Your task to perform on an android device: Search for the best Nike running shoes on Nike.com Image 0: 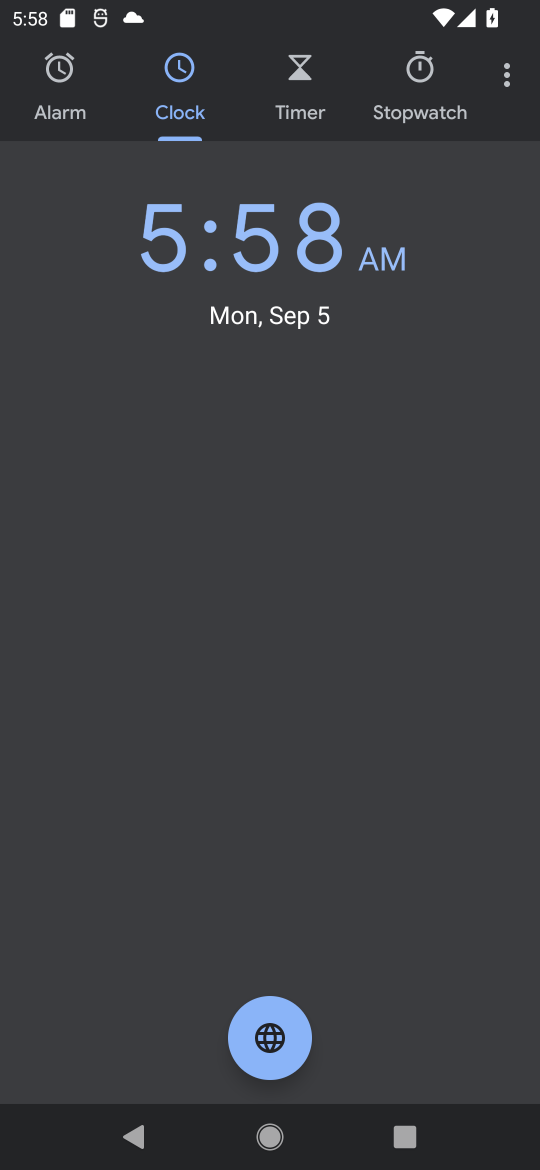
Step 0: press home button
Your task to perform on an android device: Search for the best Nike running shoes on Nike.com Image 1: 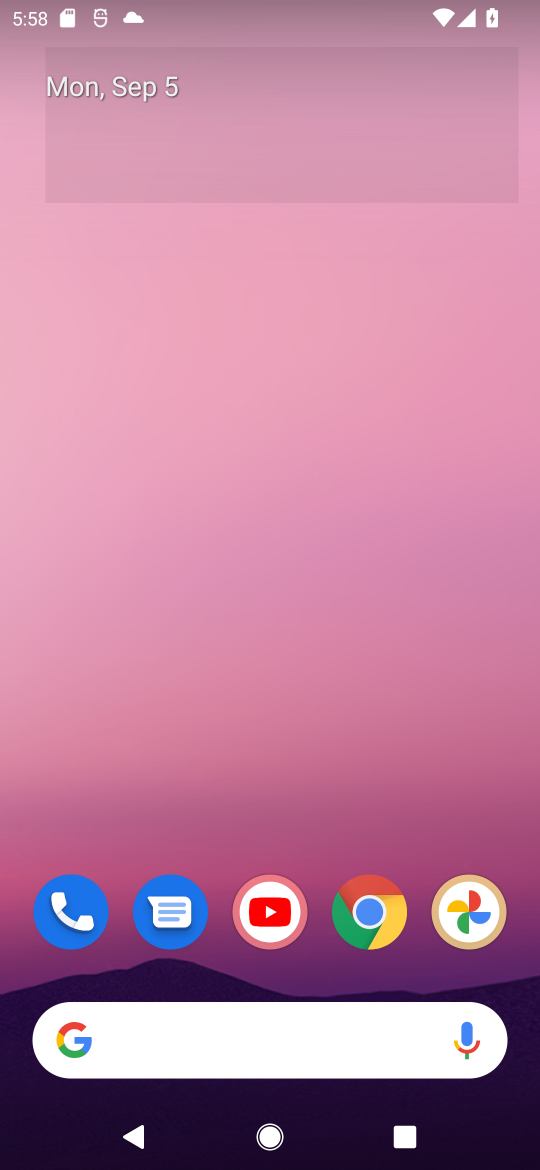
Step 1: click (352, 923)
Your task to perform on an android device: Search for the best Nike running shoes on Nike.com Image 2: 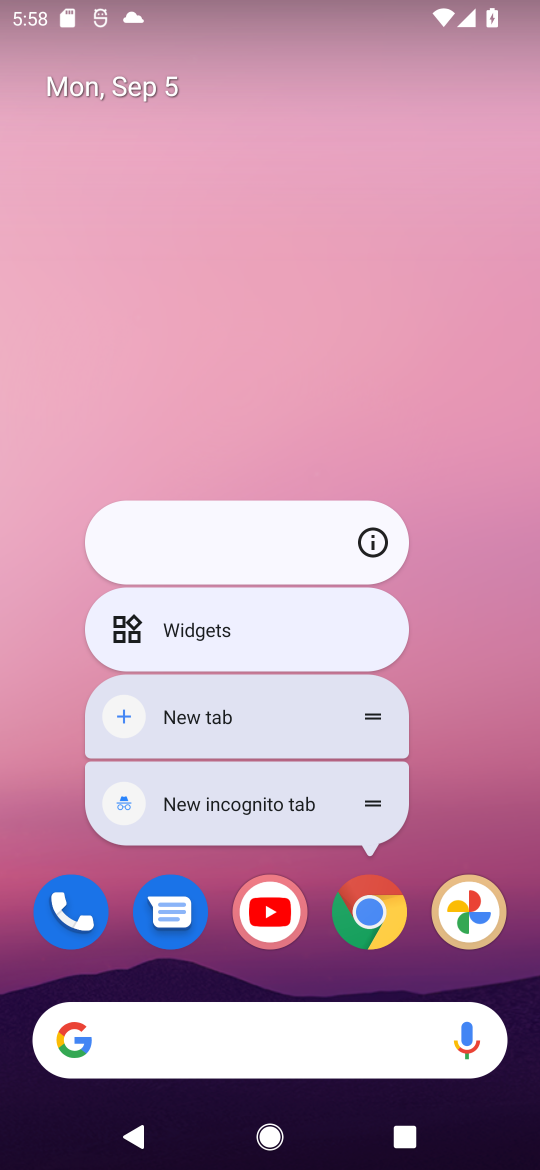
Step 2: click (352, 923)
Your task to perform on an android device: Search for the best Nike running shoes on Nike.com Image 3: 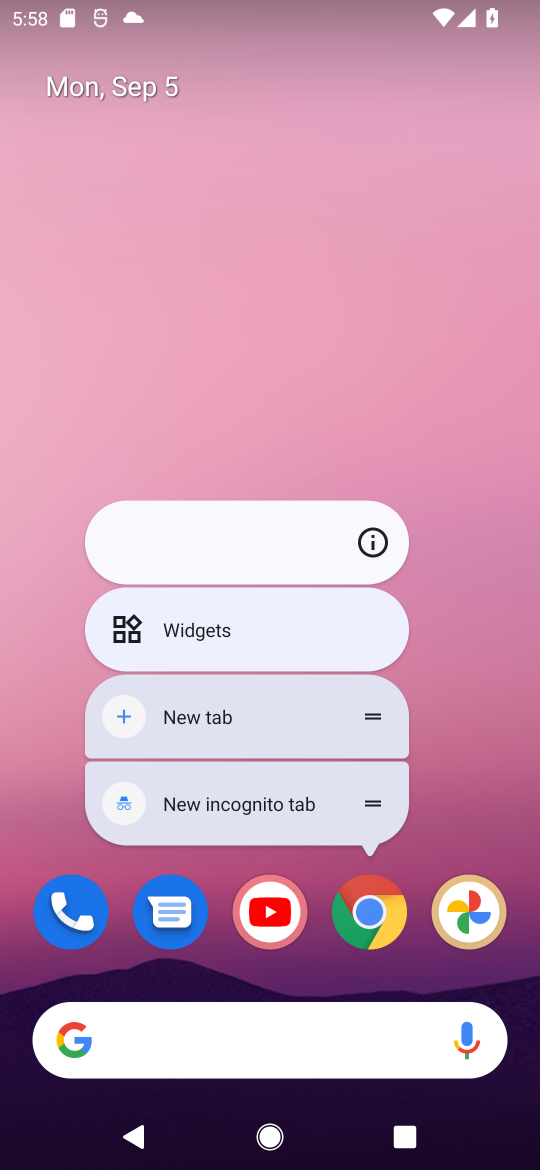
Step 3: click (382, 913)
Your task to perform on an android device: Search for the best Nike running shoes on Nike.com Image 4: 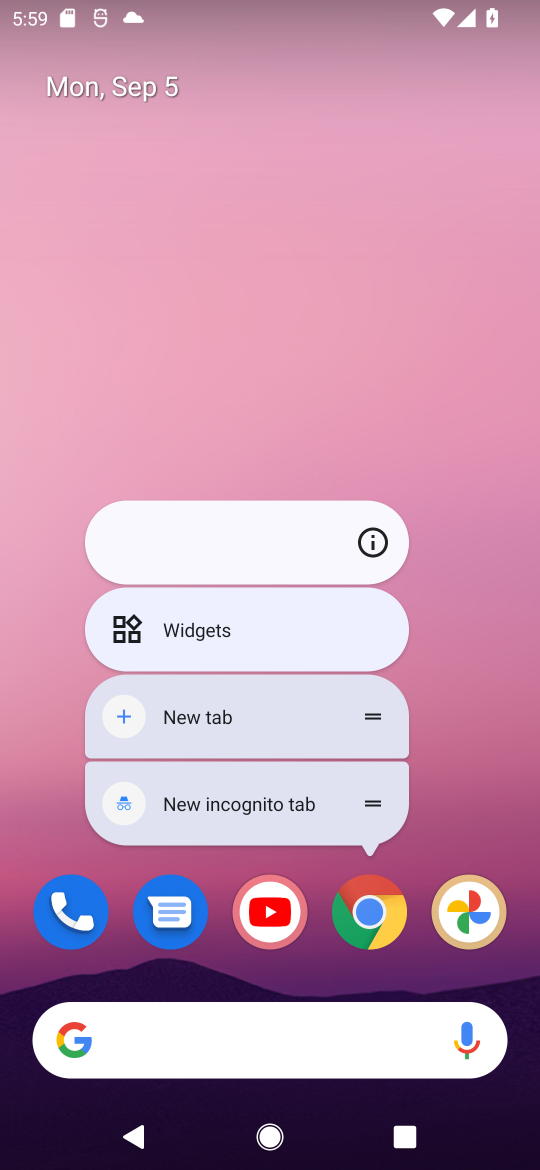
Step 4: click (382, 913)
Your task to perform on an android device: Search for the best Nike running shoes on Nike.com Image 5: 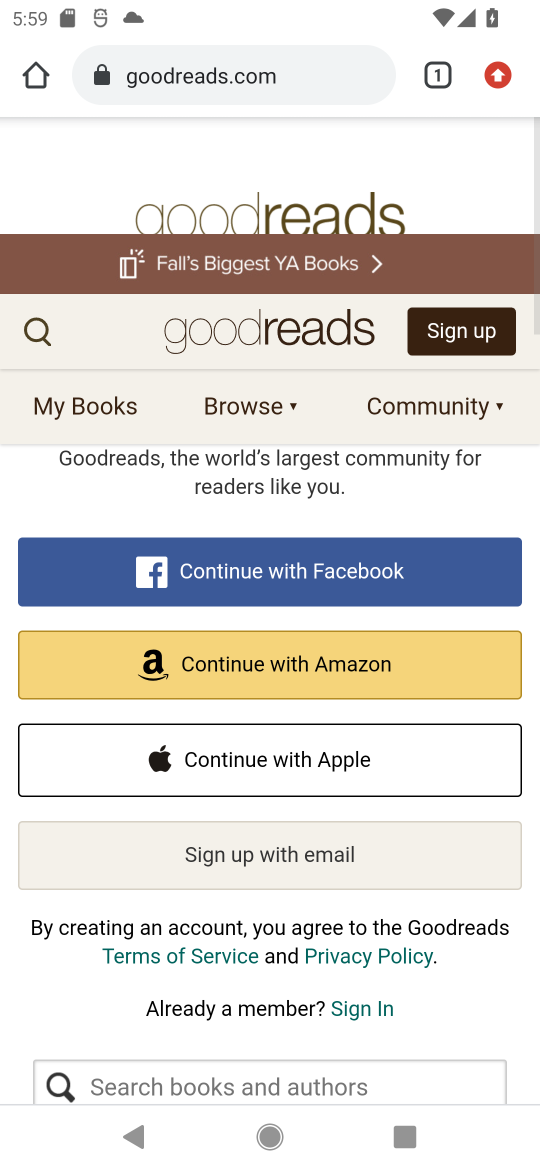
Step 5: click (259, 78)
Your task to perform on an android device: Search for the best Nike running shoes on Nike.com Image 6: 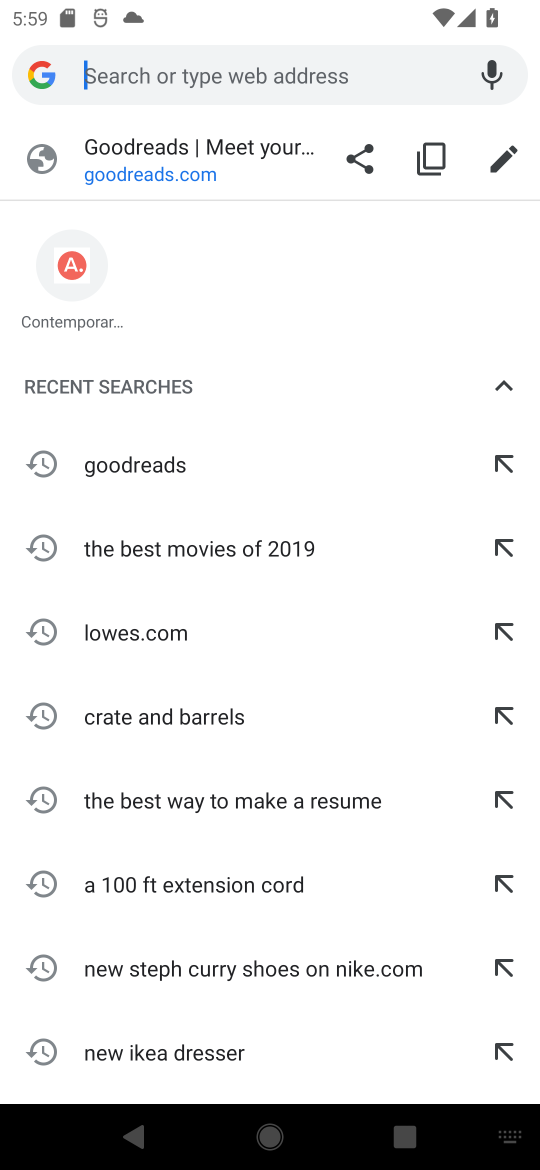
Step 6: type "nike.com"
Your task to perform on an android device: Search for the best Nike running shoes on Nike.com Image 7: 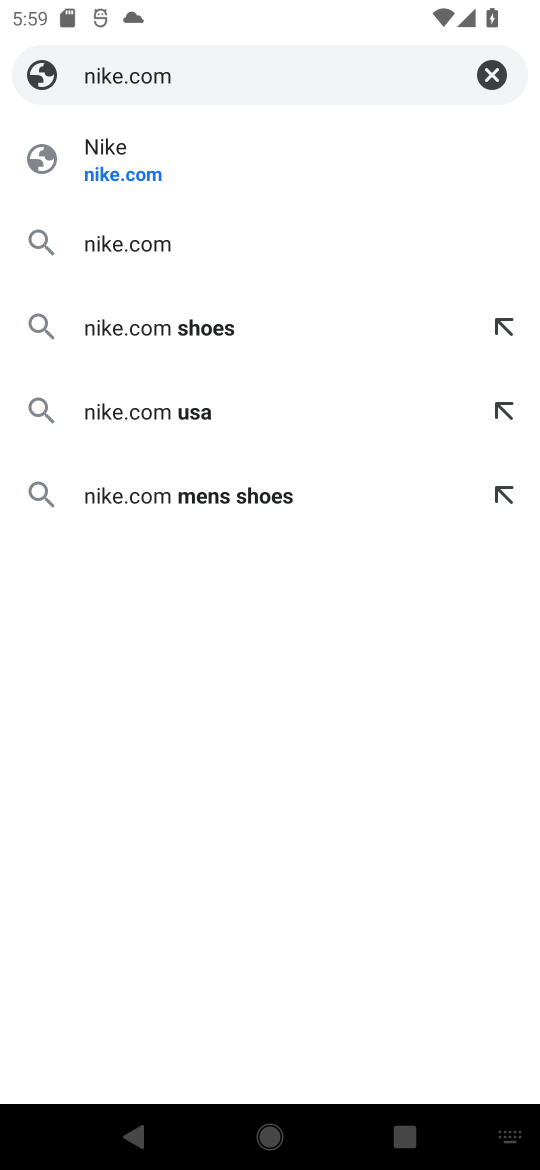
Step 7: click (149, 150)
Your task to perform on an android device: Search for the best Nike running shoes on Nike.com Image 8: 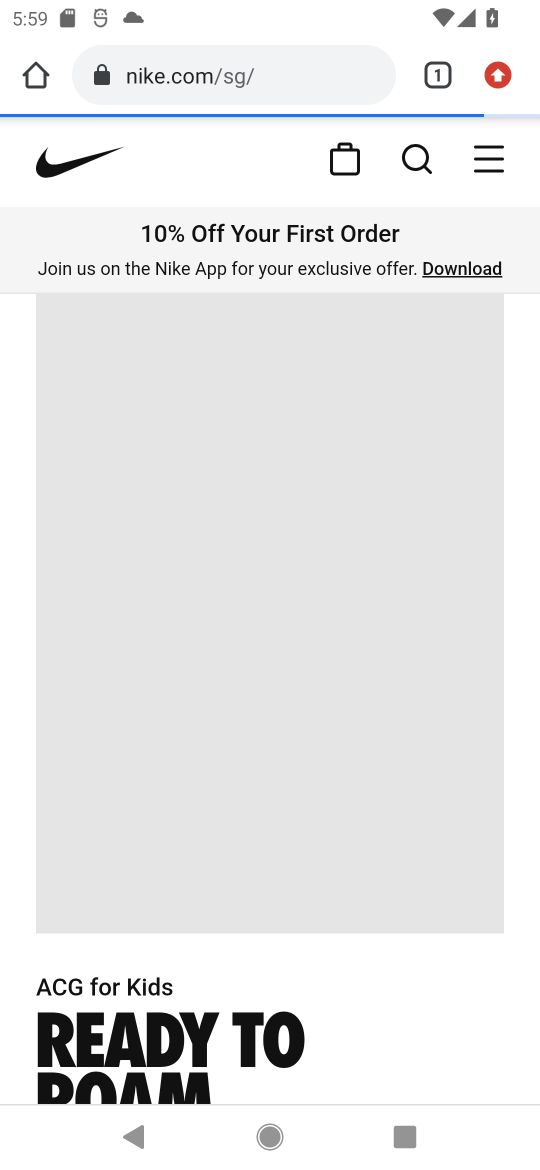
Step 8: click (414, 156)
Your task to perform on an android device: Search for the best Nike running shoes on Nike.com Image 9: 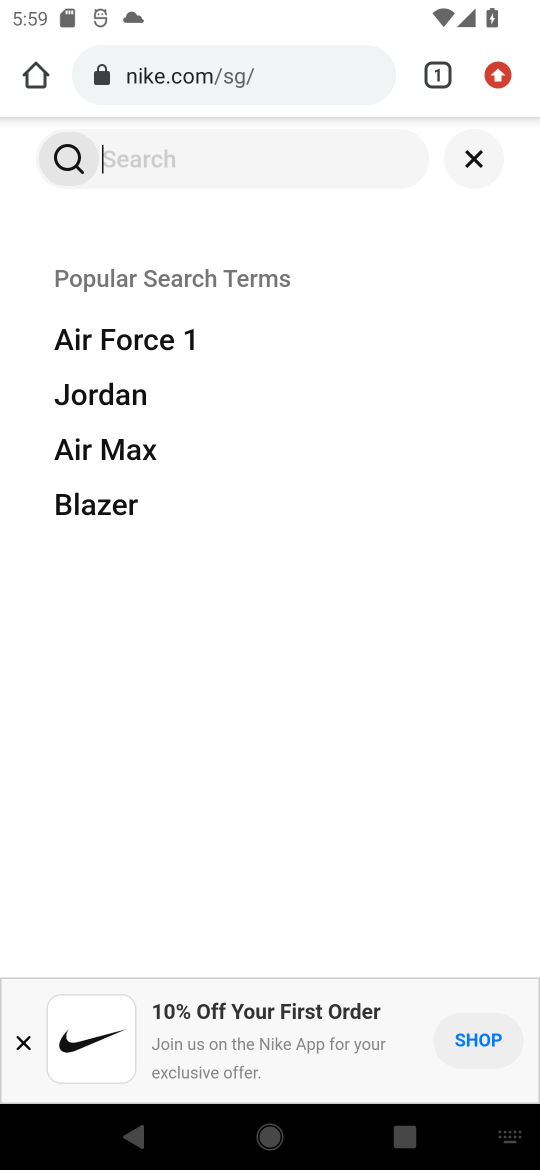
Step 9: type "best running shoes"
Your task to perform on an android device: Search for the best Nike running shoes on Nike.com Image 10: 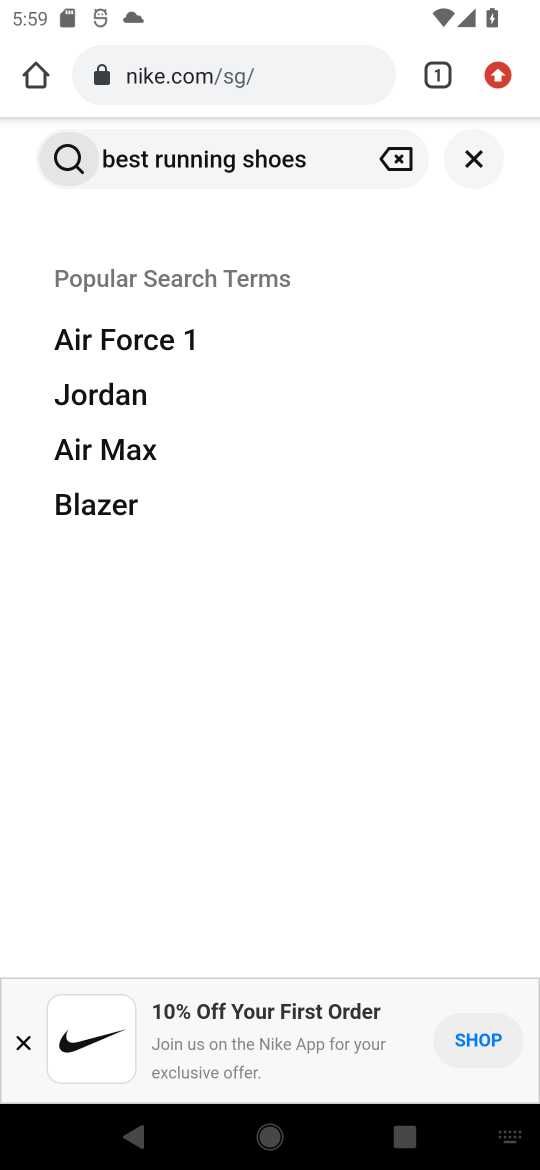
Step 10: click (58, 149)
Your task to perform on an android device: Search for the best Nike running shoes on Nike.com Image 11: 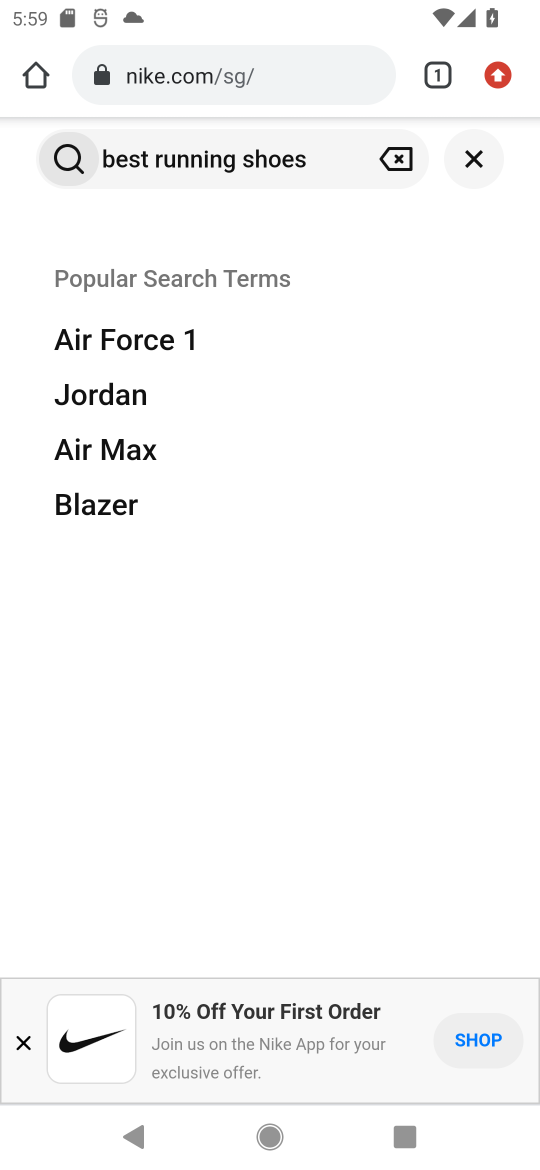
Step 11: click (58, 149)
Your task to perform on an android device: Search for the best Nike running shoes on Nike.com Image 12: 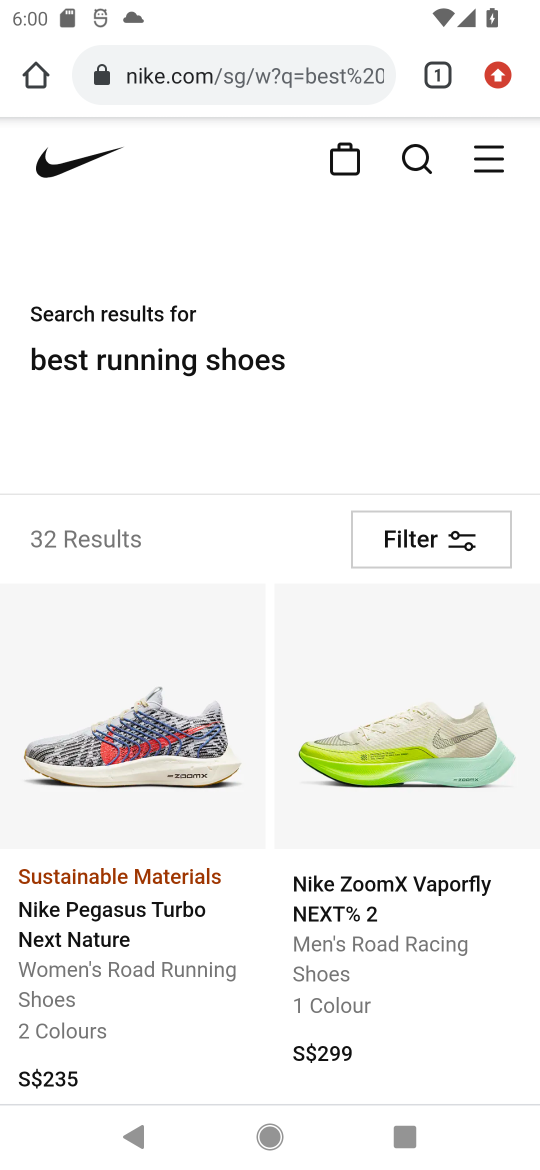
Step 12: task complete